Your task to perform on an android device: turn off priority inbox in the gmail app Image 0: 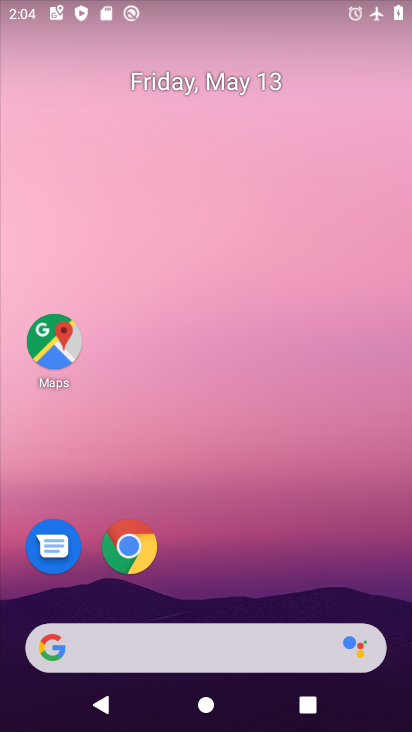
Step 0: drag from (296, 576) to (216, 87)
Your task to perform on an android device: turn off priority inbox in the gmail app Image 1: 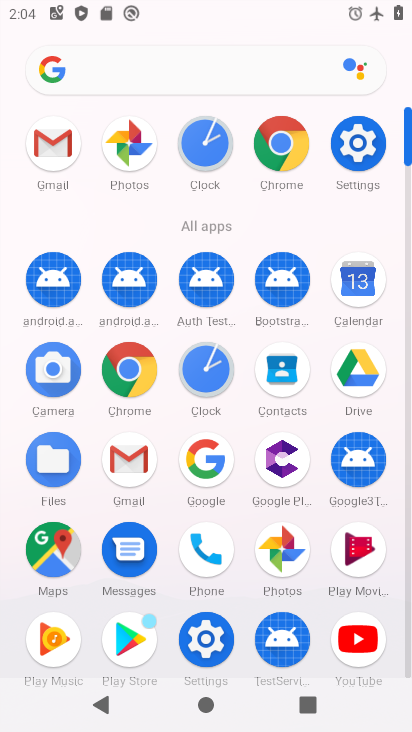
Step 1: click (123, 460)
Your task to perform on an android device: turn off priority inbox in the gmail app Image 2: 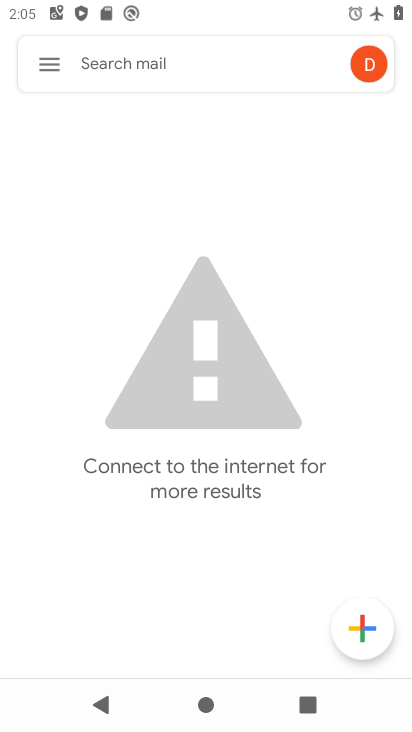
Step 2: click (54, 63)
Your task to perform on an android device: turn off priority inbox in the gmail app Image 3: 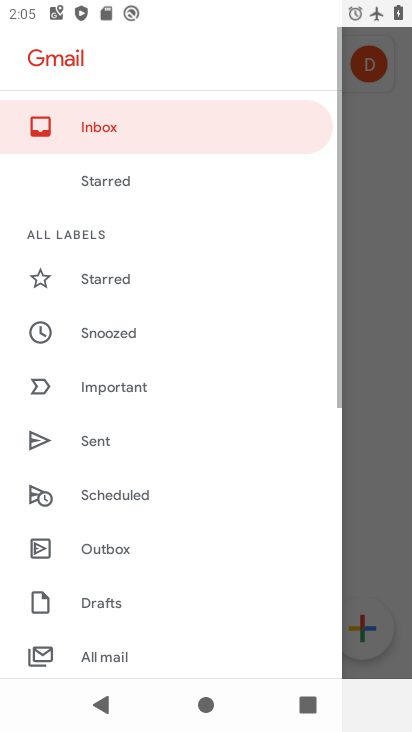
Step 3: drag from (202, 485) to (222, 57)
Your task to perform on an android device: turn off priority inbox in the gmail app Image 4: 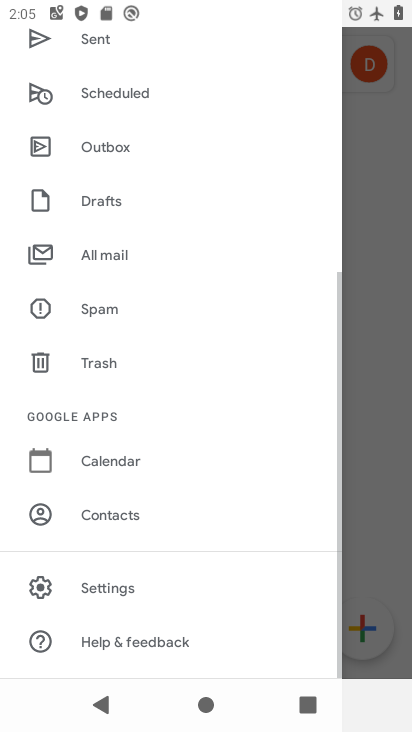
Step 4: click (129, 595)
Your task to perform on an android device: turn off priority inbox in the gmail app Image 5: 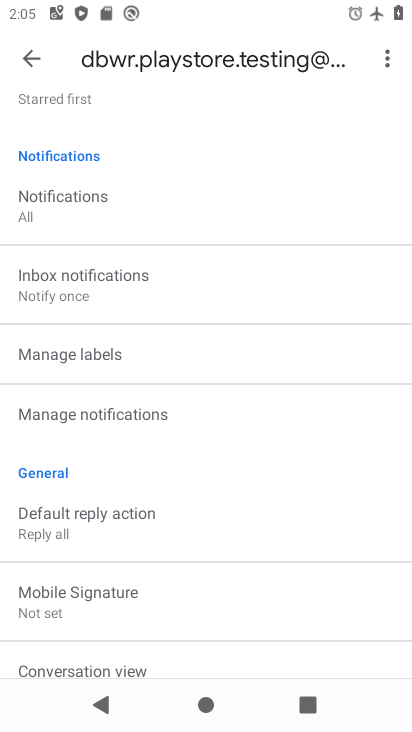
Step 5: drag from (140, 561) to (178, 115)
Your task to perform on an android device: turn off priority inbox in the gmail app Image 6: 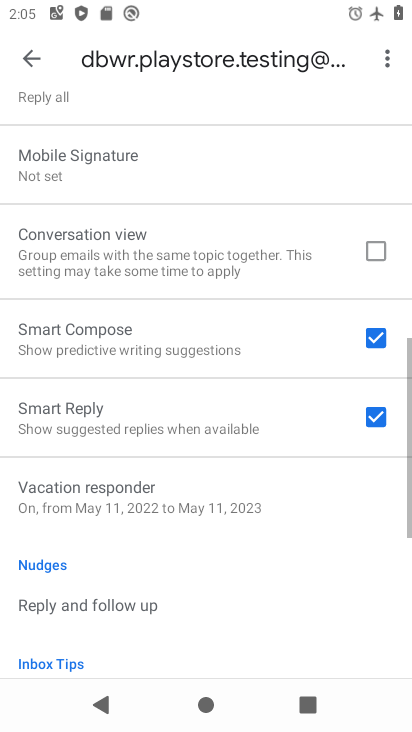
Step 6: drag from (142, 161) to (272, 639)
Your task to perform on an android device: turn off priority inbox in the gmail app Image 7: 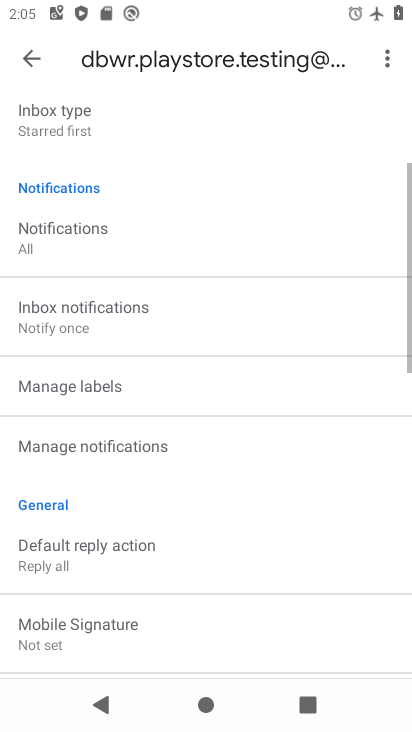
Step 7: drag from (107, 144) to (174, 417)
Your task to perform on an android device: turn off priority inbox in the gmail app Image 8: 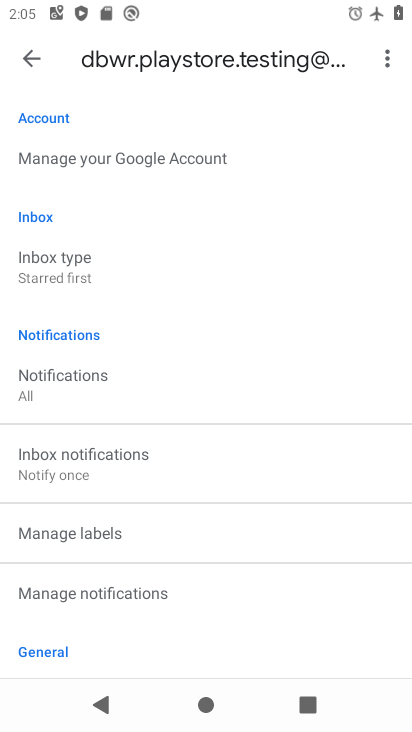
Step 8: drag from (88, 186) to (158, 541)
Your task to perform on an android device: turn off priority inbox in the gmail app Image 9: 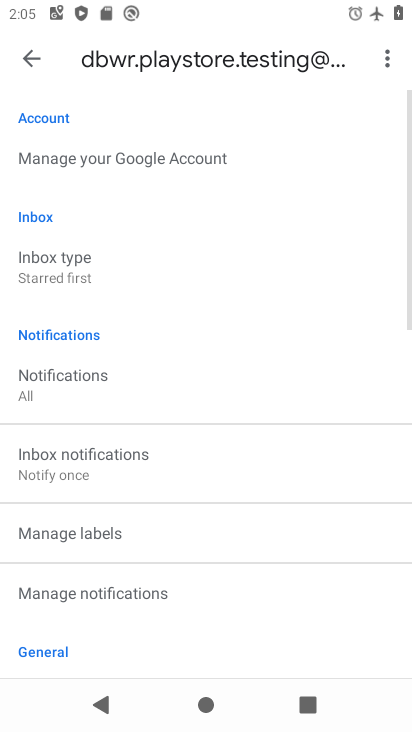
Step 9: click (54, 268)
Your task to perform on an android device: turn off priority inbox in the gmail app Image 10: 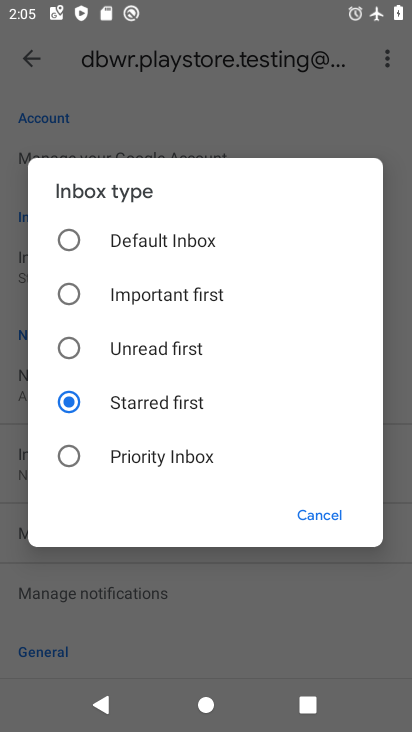
Step 10: task complete